Your task to perform on an android device: open app "Adobe Acrobat Reader: Edit PDF" (install if not already installed) Image 0: 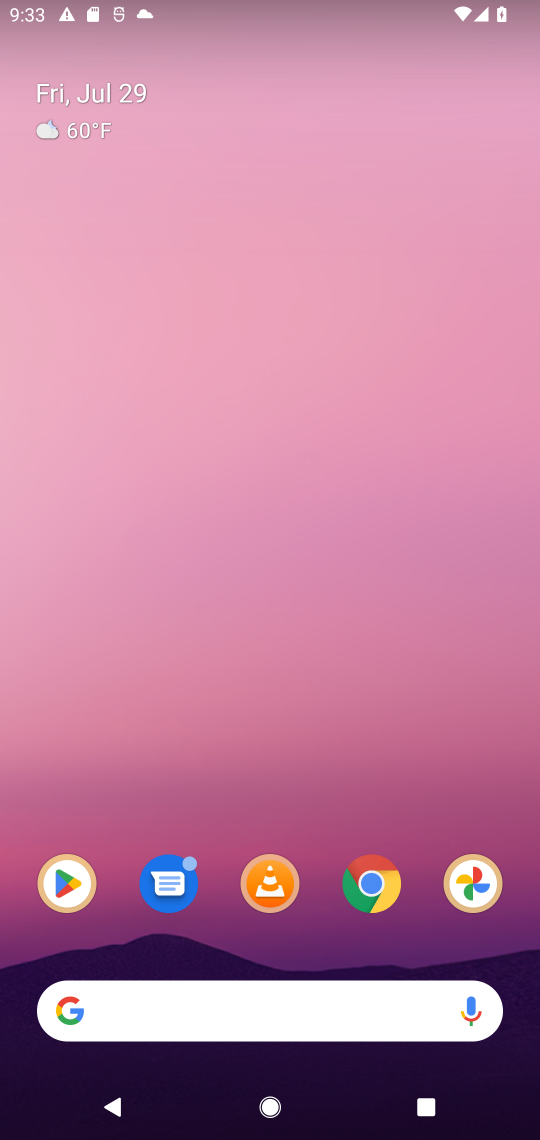
Step 0: drag from (237, 821) to (353, 17)
Your task to perform on an android device: open app "Adobe Acrobat Reader: Edit PDF" (install if not already installed) Image 1: 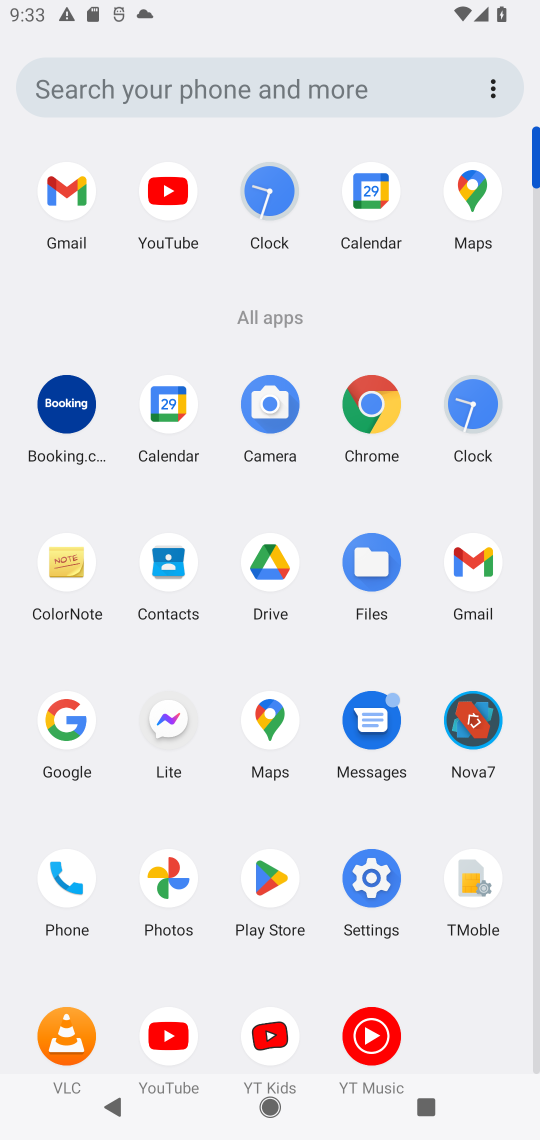
Step 1: click (253, 895)
Your task to perform on an android device: open app "Adobe Acrobat Reader: Edit PDF" (install if not already installed) Image 2: 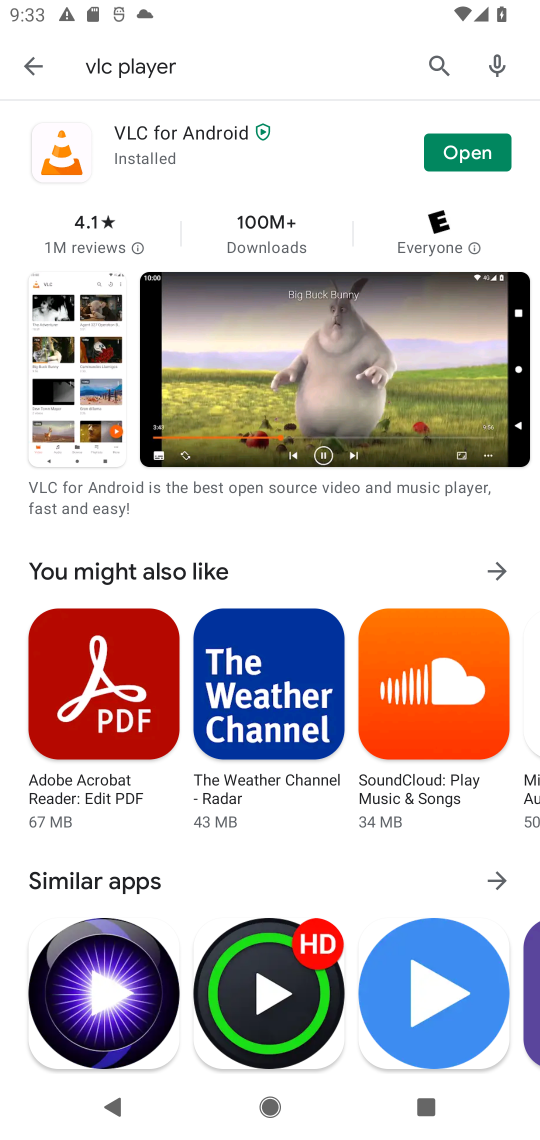
Step 2: click (150, 86)
Your task to perform on an android device: open app "Adobe Acrobat Reader: Edit PDF" (install if not already installed) Image 3: 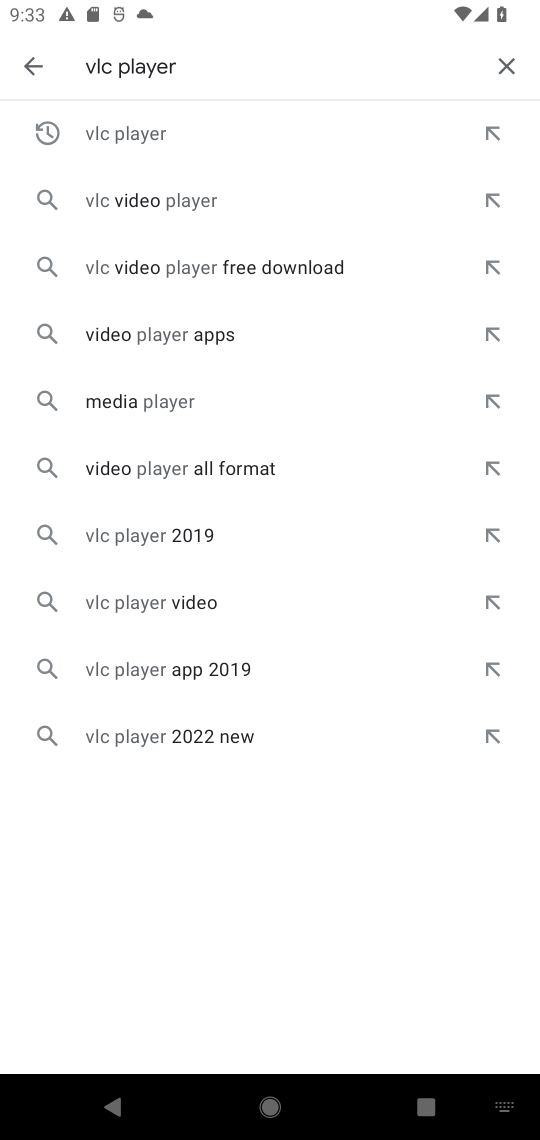
Step 3: click (503, 68)
Your task to perform on an android device: open app "Adobe Acrobat Reader: Edit PDF" (install if not already installed) Image 4: 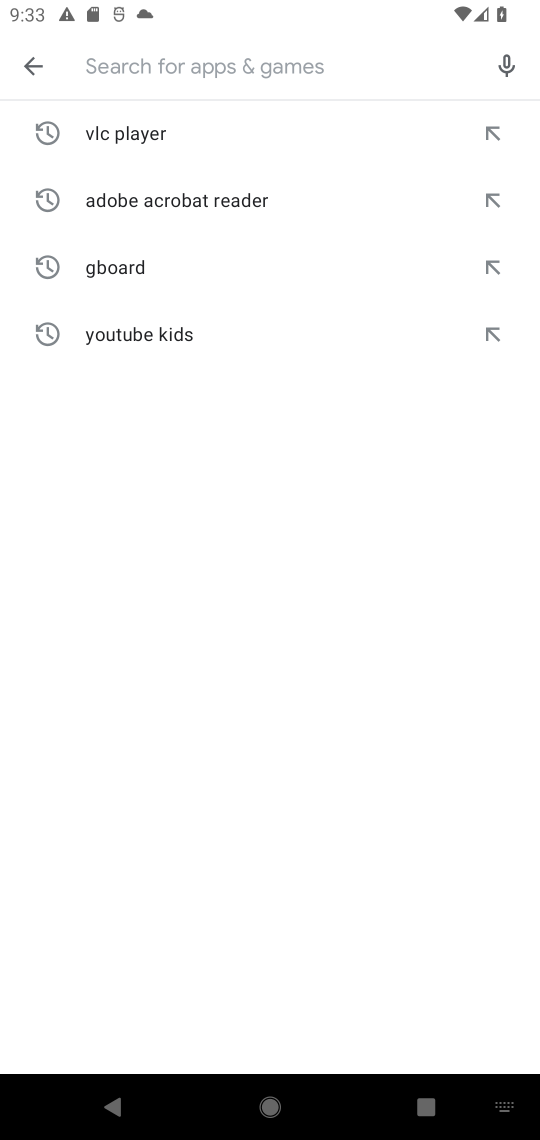
Step 4: type "Adobe Acrobat Reader"
Your task to perform on an android device: open app "Adobe Acrobat Reader: Edit PDF" (install if not already installed) Image 5: 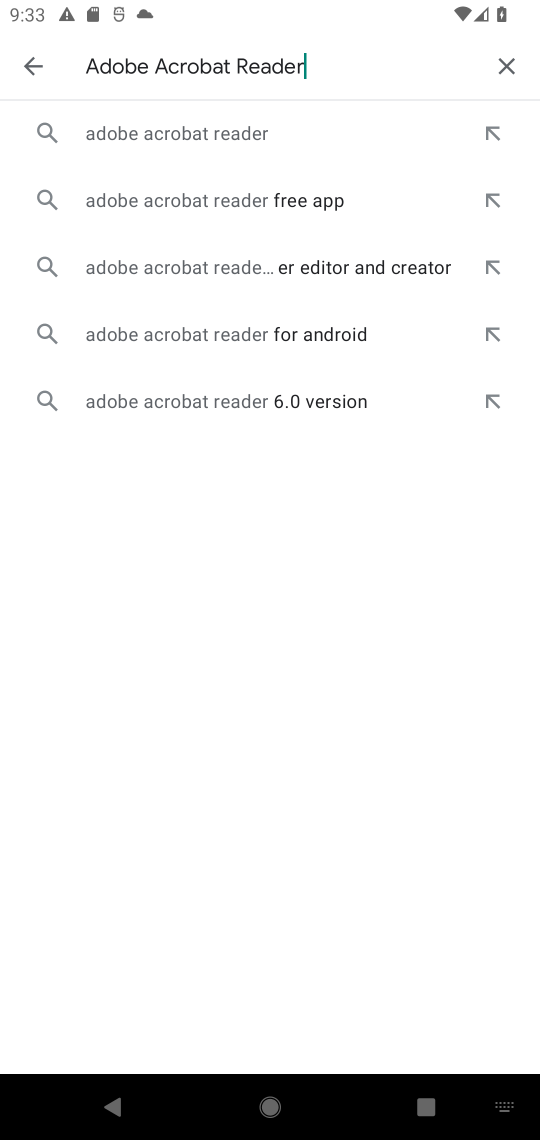
Step 5: click (215, 120)
Your task to perform on an android device: open app "Adobe Acrobat Reader: Edit PDF" (install if not already installed) Image 6: 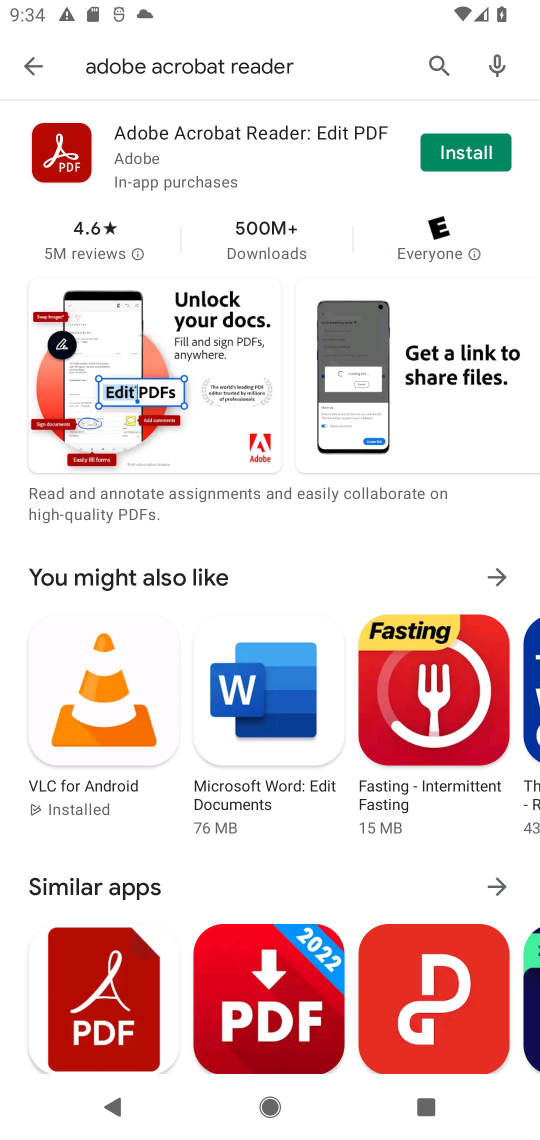
Step 6: click (467, 148)
Your task to perform on an android device: open app "Adobe Acrobat Reader: Edit PDF" (install if not already installed) Image 7: 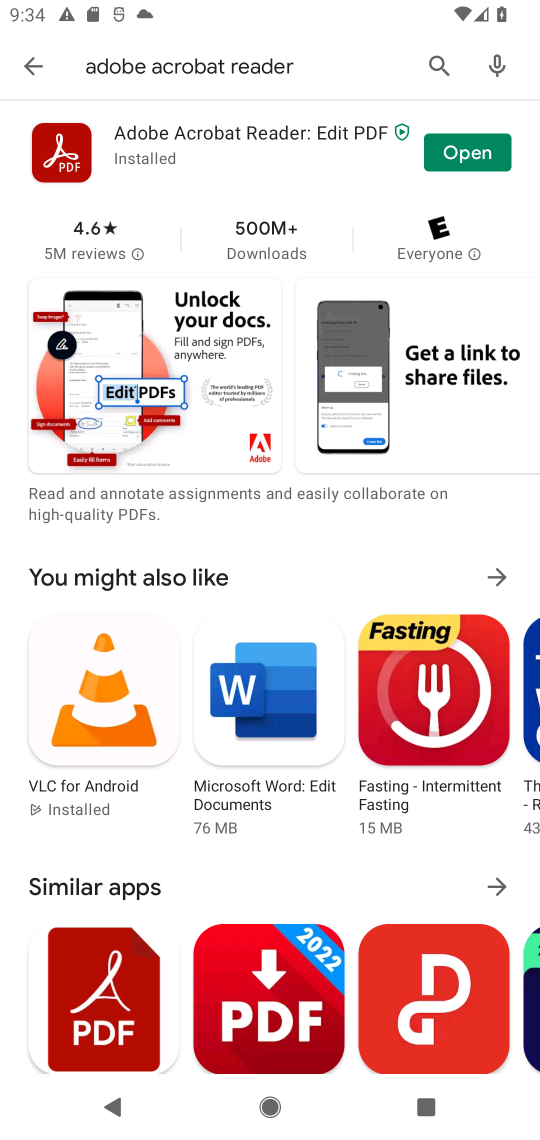
Step 7: click (438, 151)
Your task to perform on an android device: open app "Adobe Acrobat Reader: Edit PDF" (install if not already installed) Image 8: 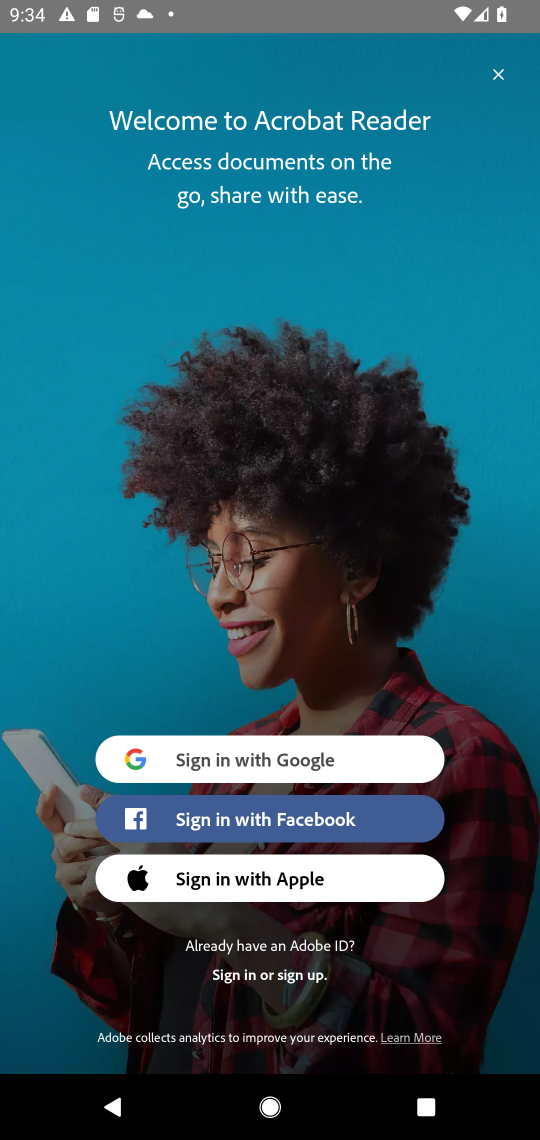
Step 8: click (288, 761)
Your task to perform on an android device: open app "Adobe Acrobat Reader: Edit PDF" (install if not already installed) Image 9: 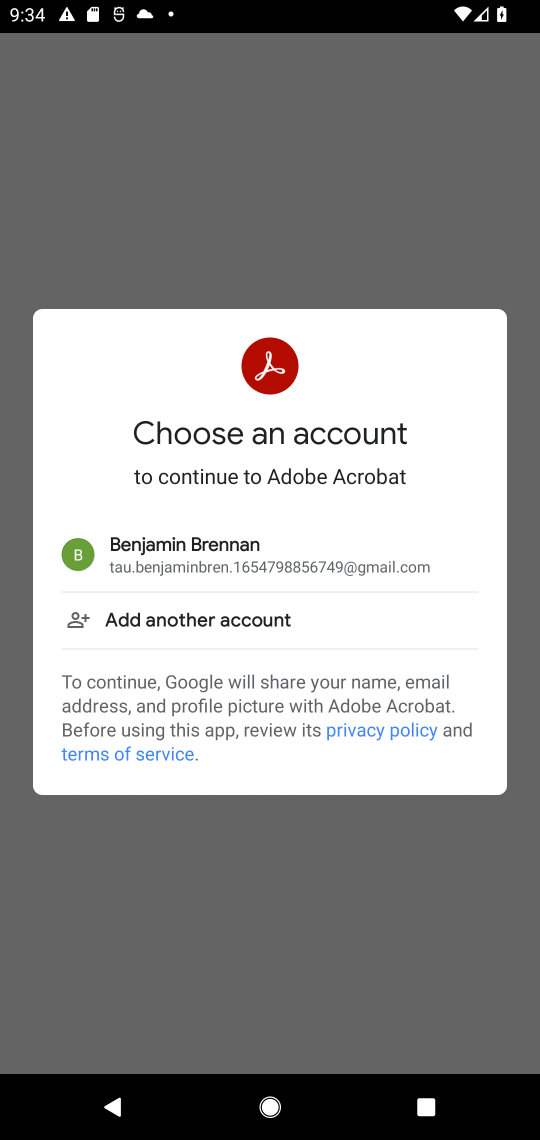
Step 9: click (237, 563)
Your task to perform on an android device: open app "Adobe Acrobat Reader: Edit PDF" (install if not already installed) Image 10: 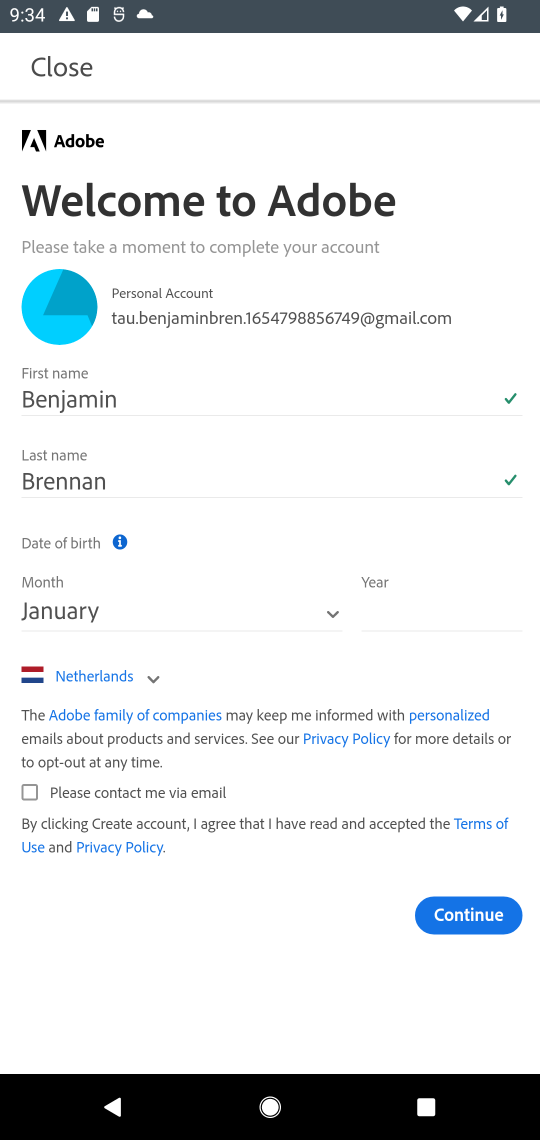
Step 10: task complete